Your task to perform on an android device: Check the weather Image 0: 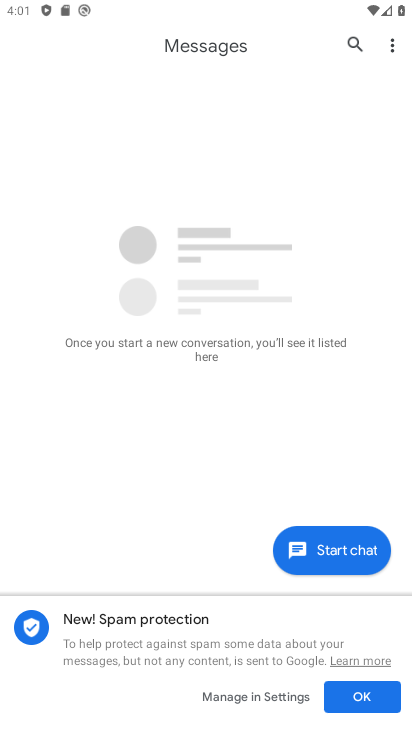
Step 0: press back button
Your task to perform on an android device: Check the weather Image 1: 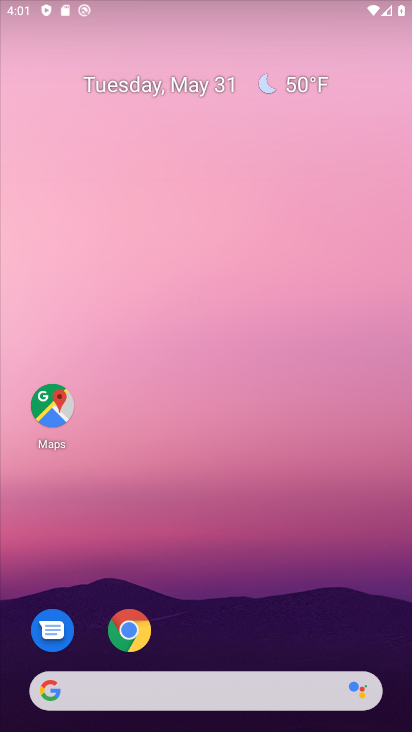
Step 1: drag from (307, 600) to (215, 39)
Your task to perform on an android device: Check the weather Image 2: 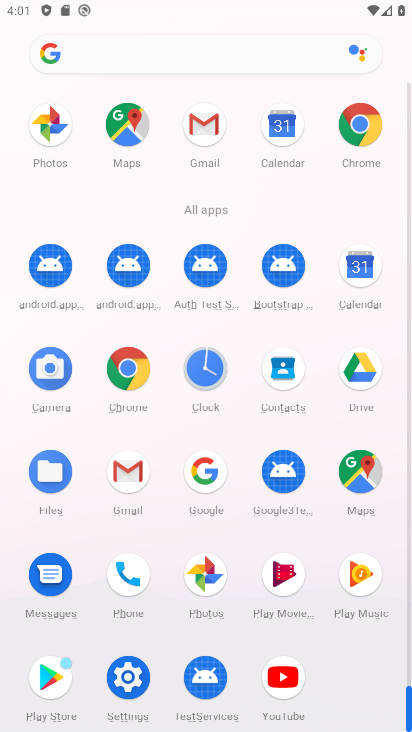
Step 2: click (357, 123)
Your task to perform on an android device: Check the weather Image 3: 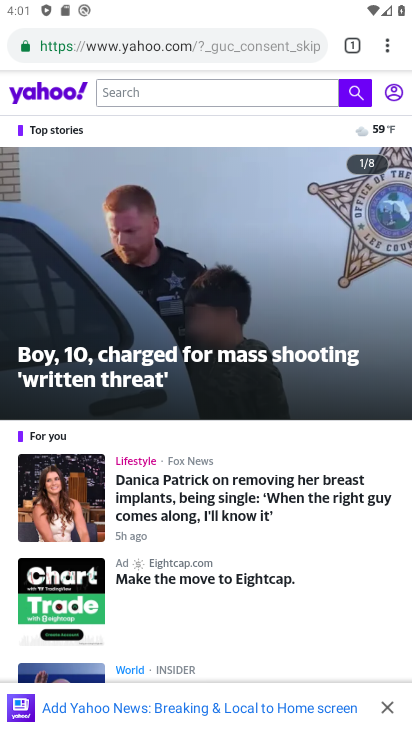
Step 3: click (146, 42)
Your task to perform on an android device: Check the weather Image 4: 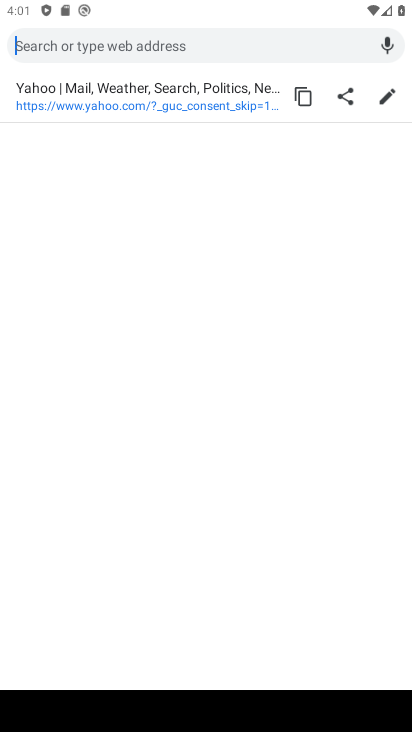
Step 4: type "Check the weather"
Your task to perform on an android device: Check the weather Image 5: 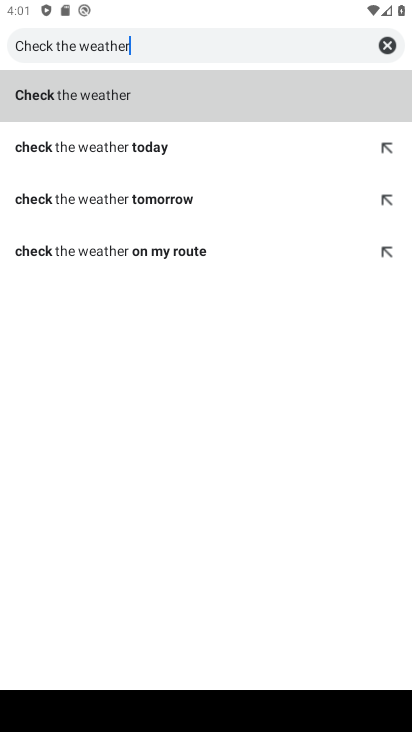
Step 5: click (168, 92)
Your task to perform on an android device: Check the weather Image 6: 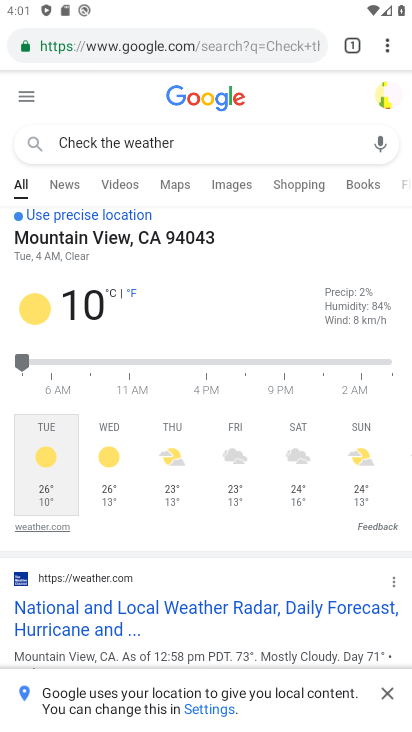
Step 6: task complete